Your task to perform on an android device: toggle airplane mode Image 0: 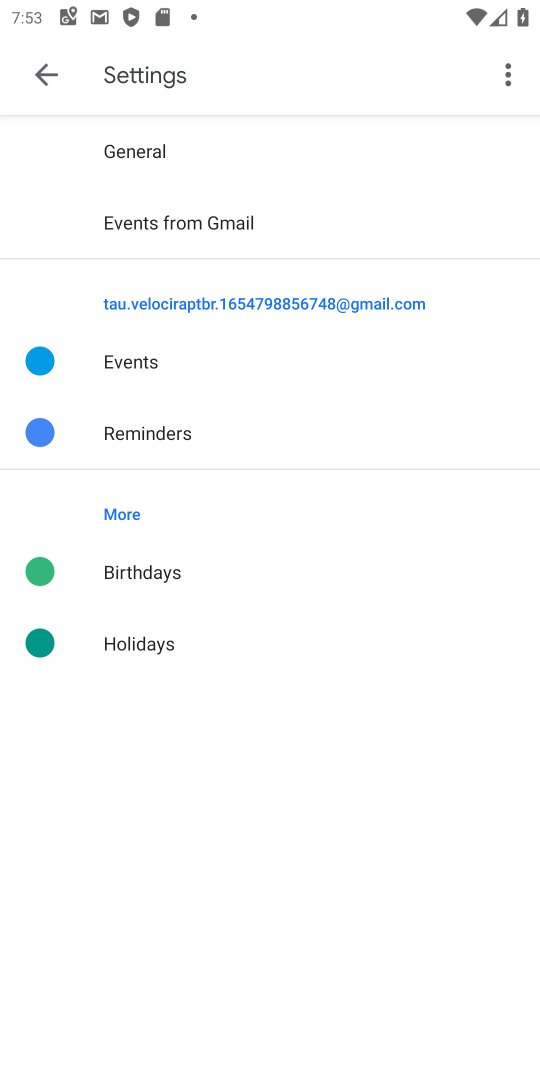
Step 0: press home button
Your task to perform on an android device: toggle airplane mode Image 1: 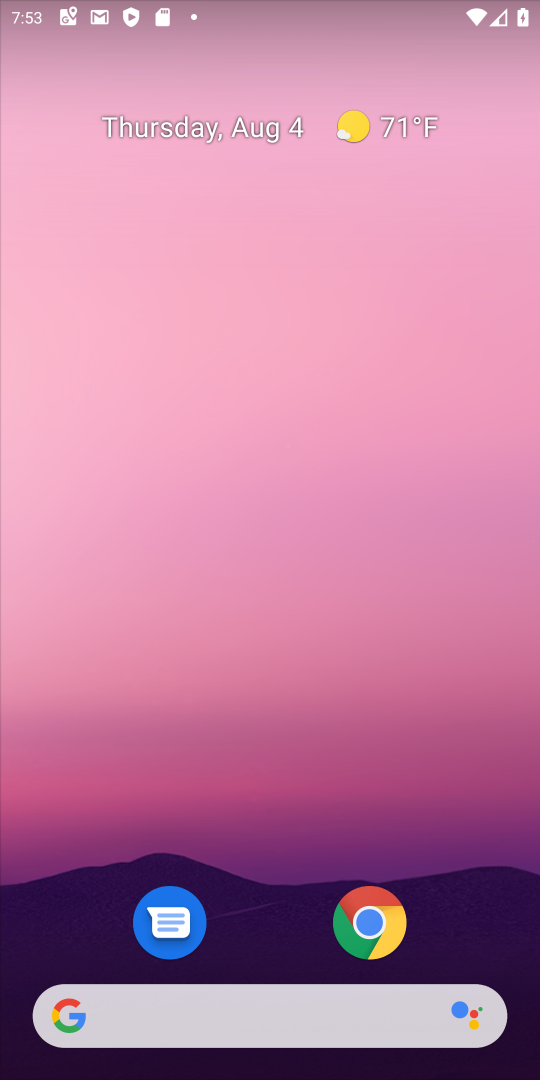
Step 1: drag from (462, 12) to (374, 681)
Your task to perform on an android device: toggle airplane mode Image 2: 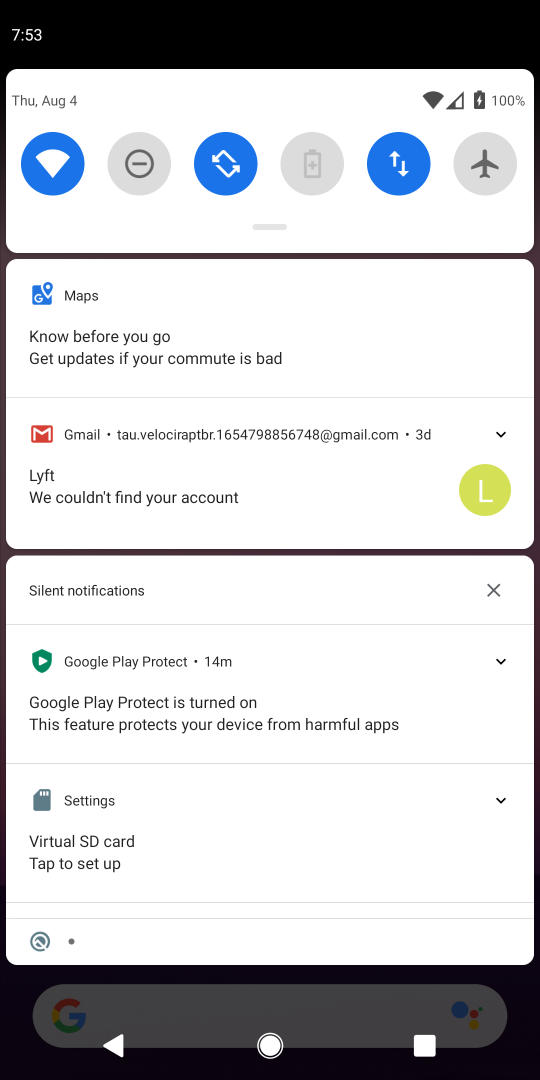
Step 2: click (489, 174)
Your task to perform on an android device: toggle airplane mode Image 3: 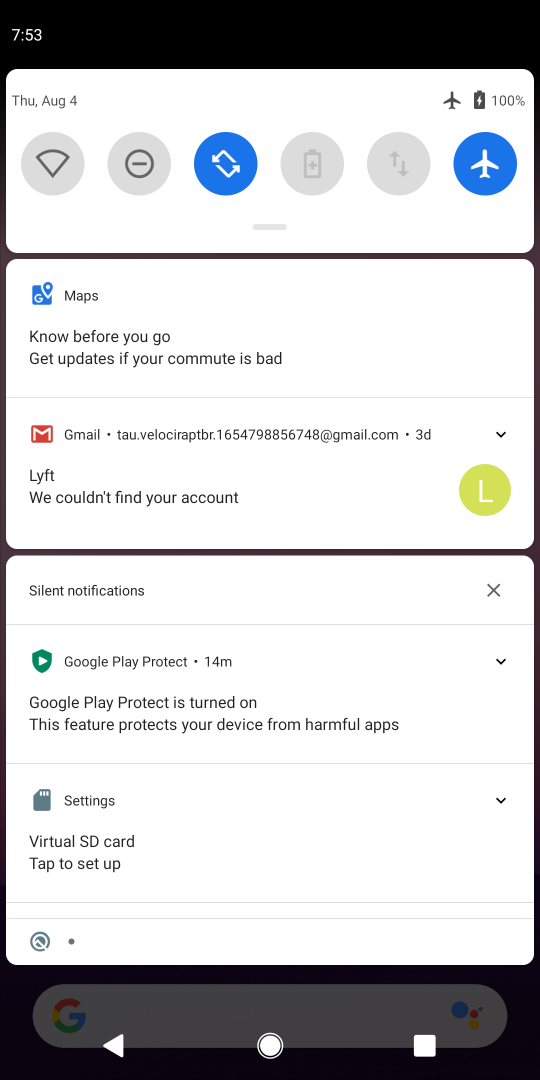
Step 3: task complete